Your task to perform on an android device: Open Amazon Image 0: 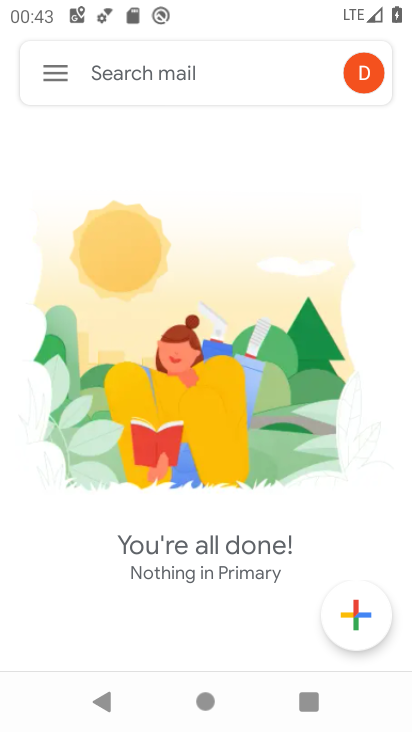
Step 0: press home button
Your task to perform on an android device: Open Amazon Image 1: 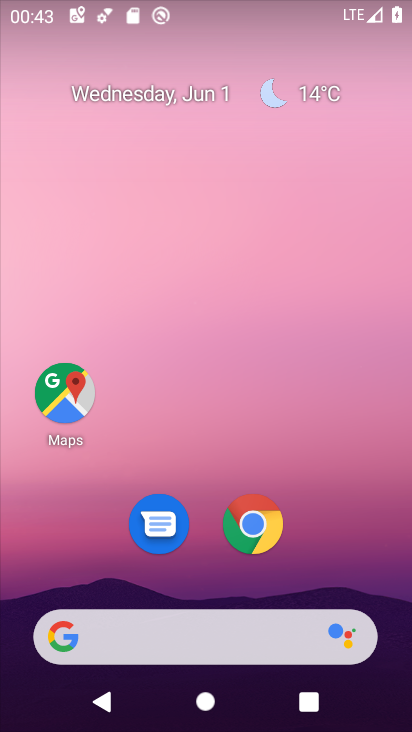
Step 1: click (248, 528)
Your task to perform on an android device: Open Amazon Image 2: 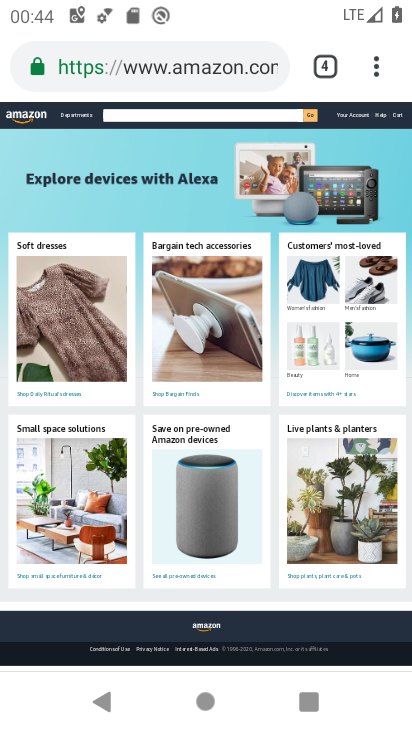
Step 2: click (378, 62)
Your task to perform on an android device: Open Amazon Image 3: 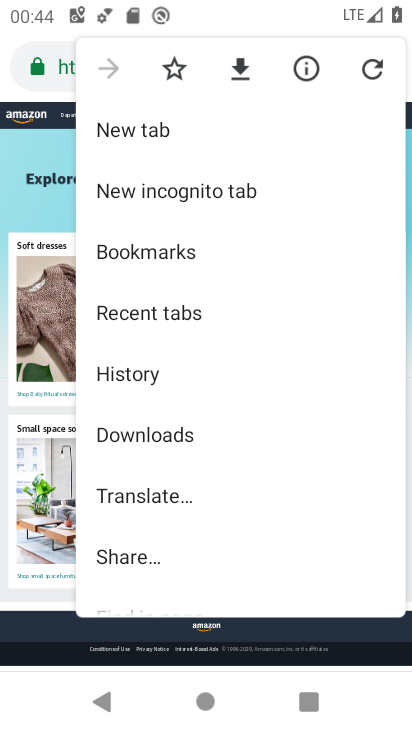
Step 3: click (284, 122)
Your task to perform on an android device: Open Amazon Image 4: 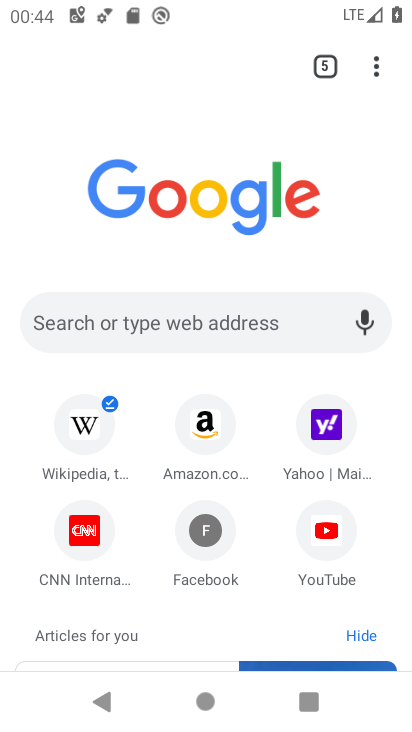
Step 4: click (204, 415)
Your task to perform on an android device: Open Amazon Image 5: 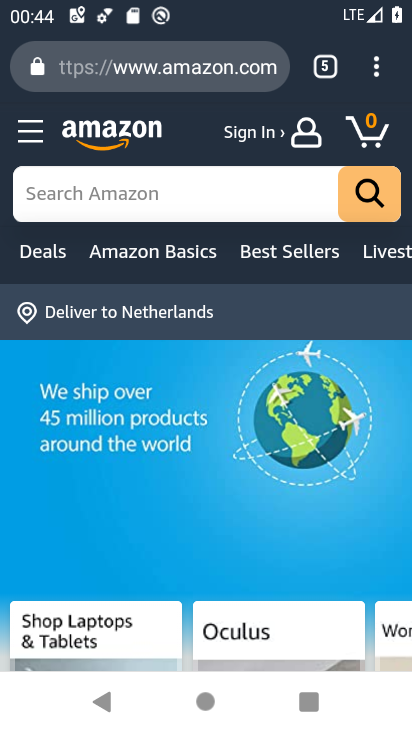
Step 5: task complete